Your task to perform on an android device: uninstall "Move to iOS" Image 0: 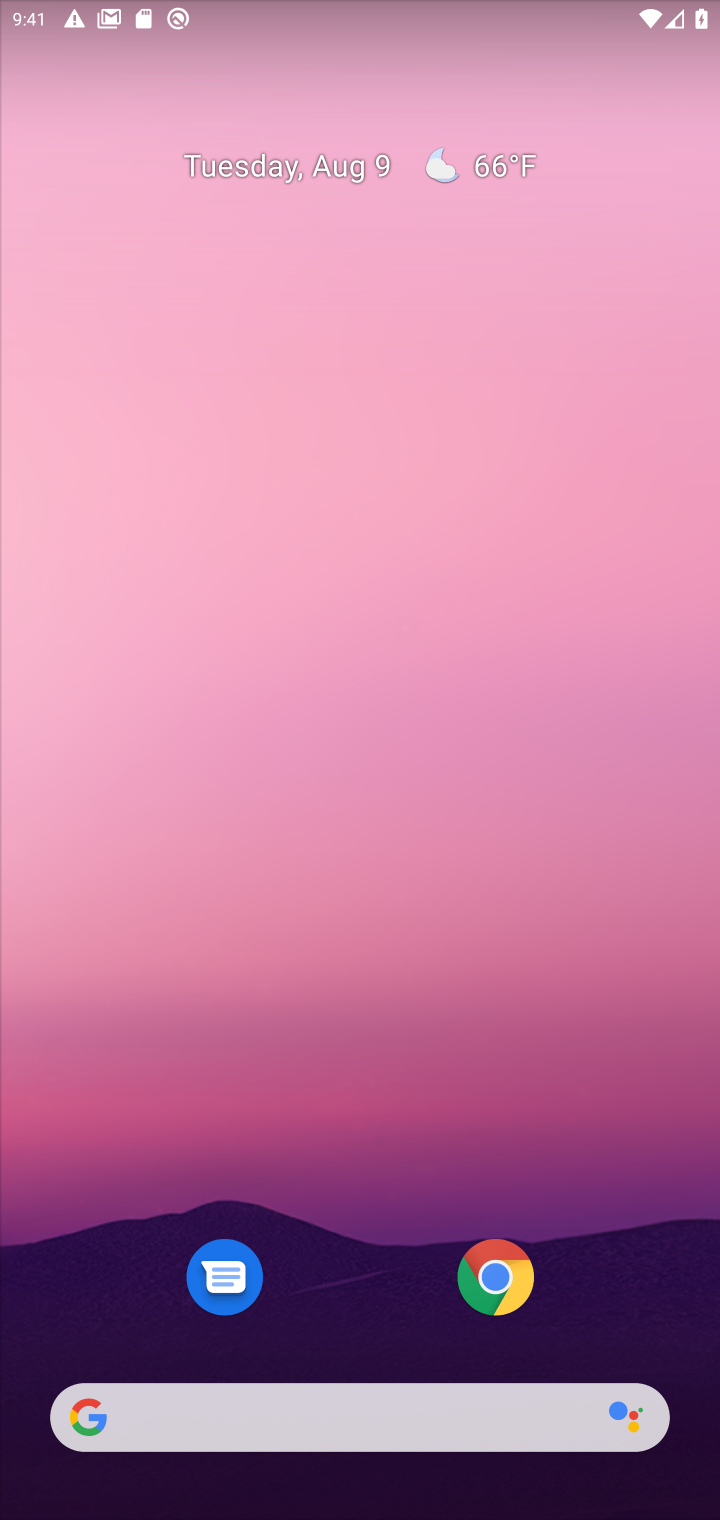
Step 0: drag from (371, 1321) to (185, 41)
Your task to perform on an android device: uninstall "Move to iOS" Image 1: 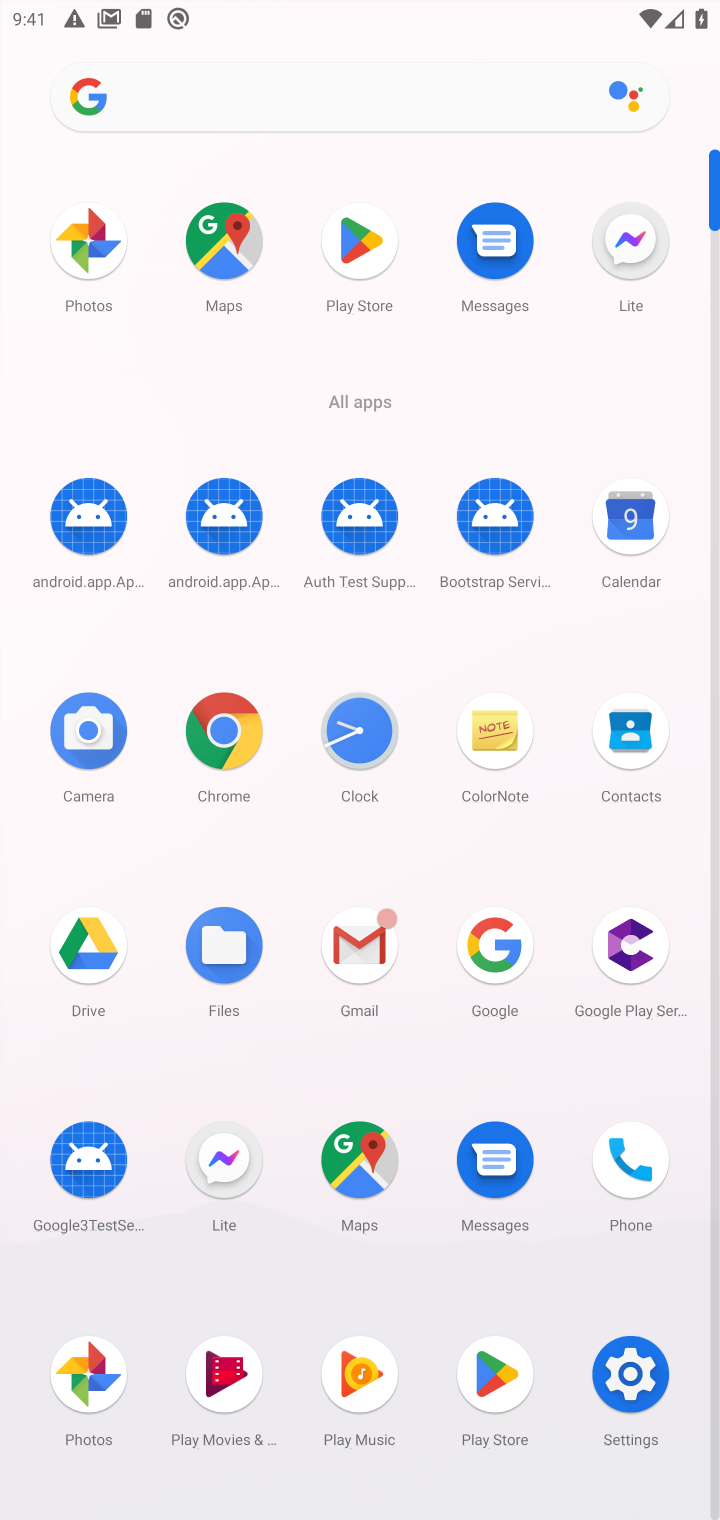
Step 1: click (528, 1347)
Your task to perform on an android device: uninstall "Move to iOS" Image 2: 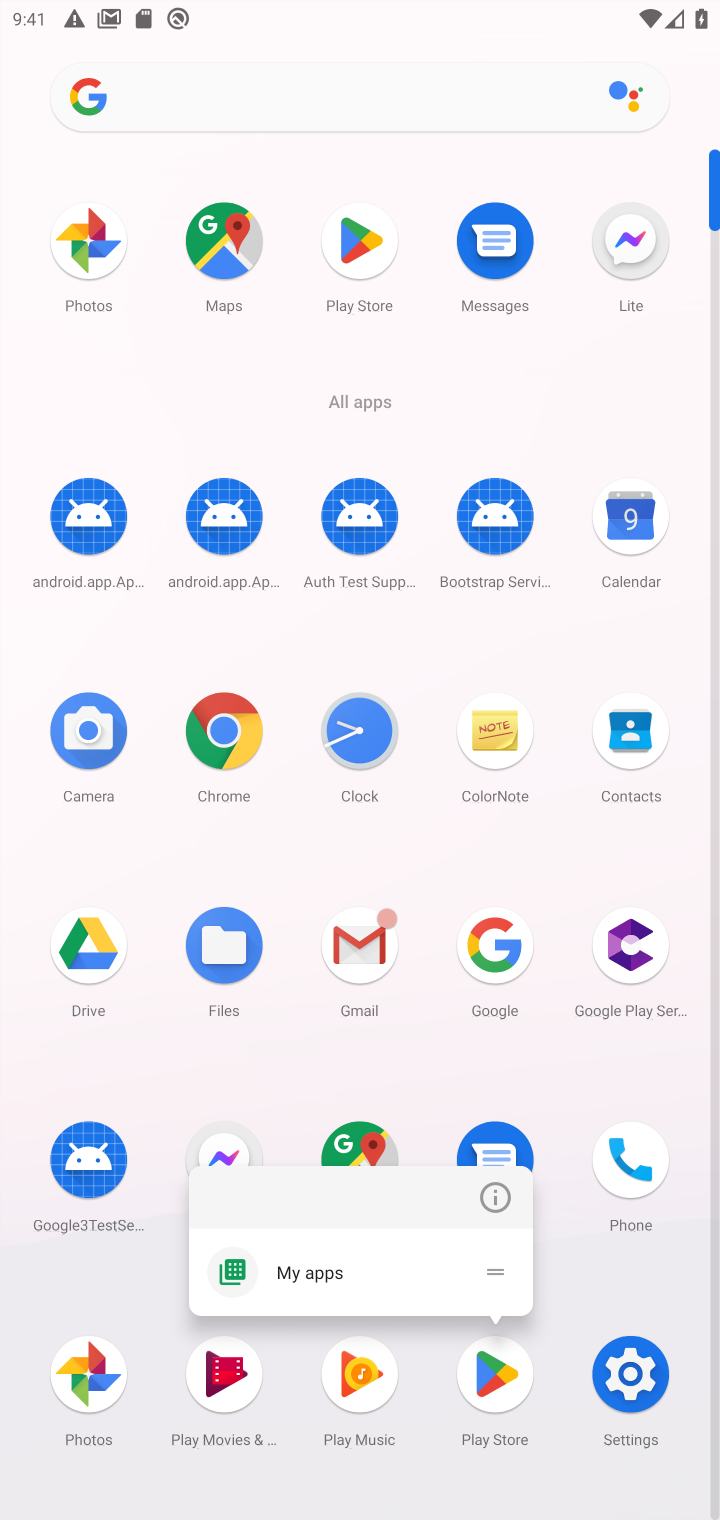
Step 2: click (508, 1378)
Your task to perform on an android device: uninstall "Move to iOS" Image 3: 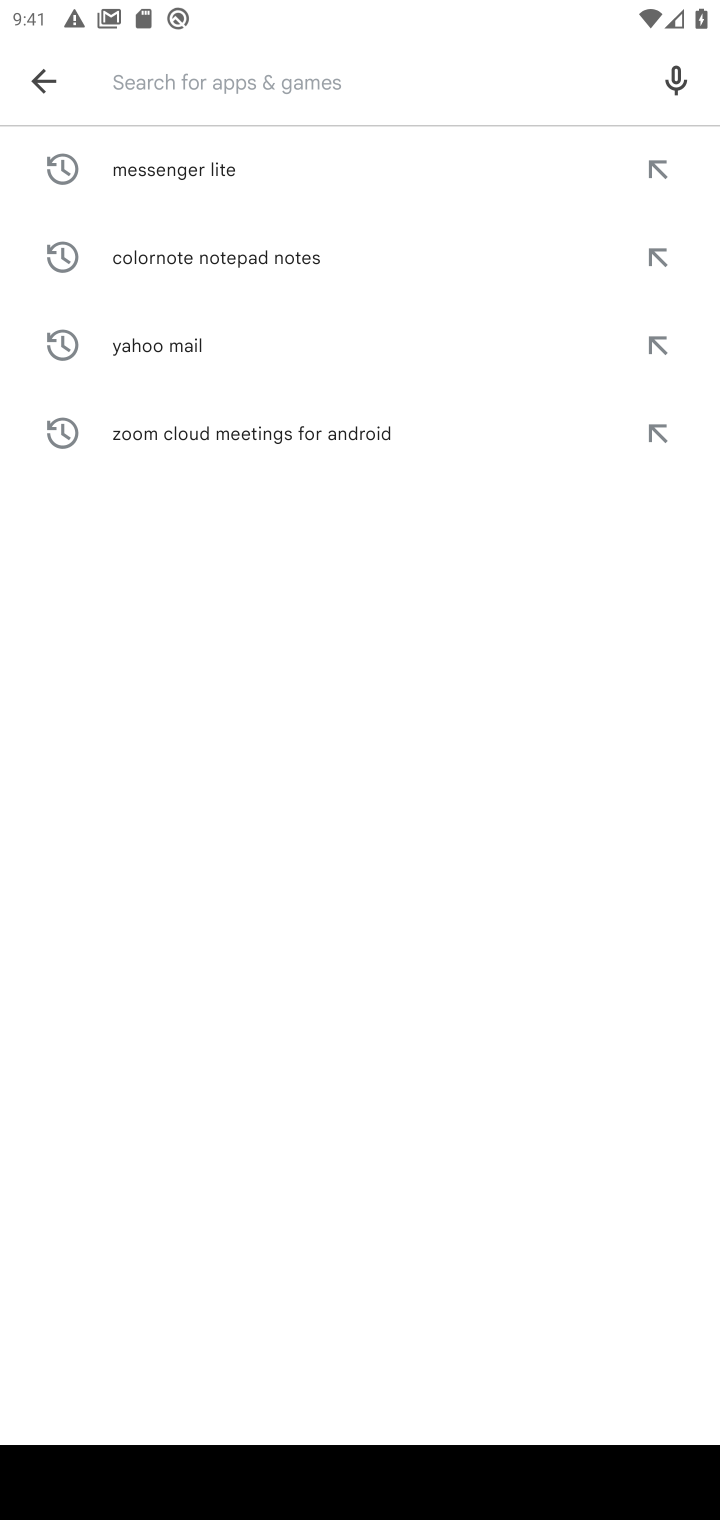
Step 3: click (27, 81)
Your task to perform on an android device: uninstall "Move to iOS" Image 4: 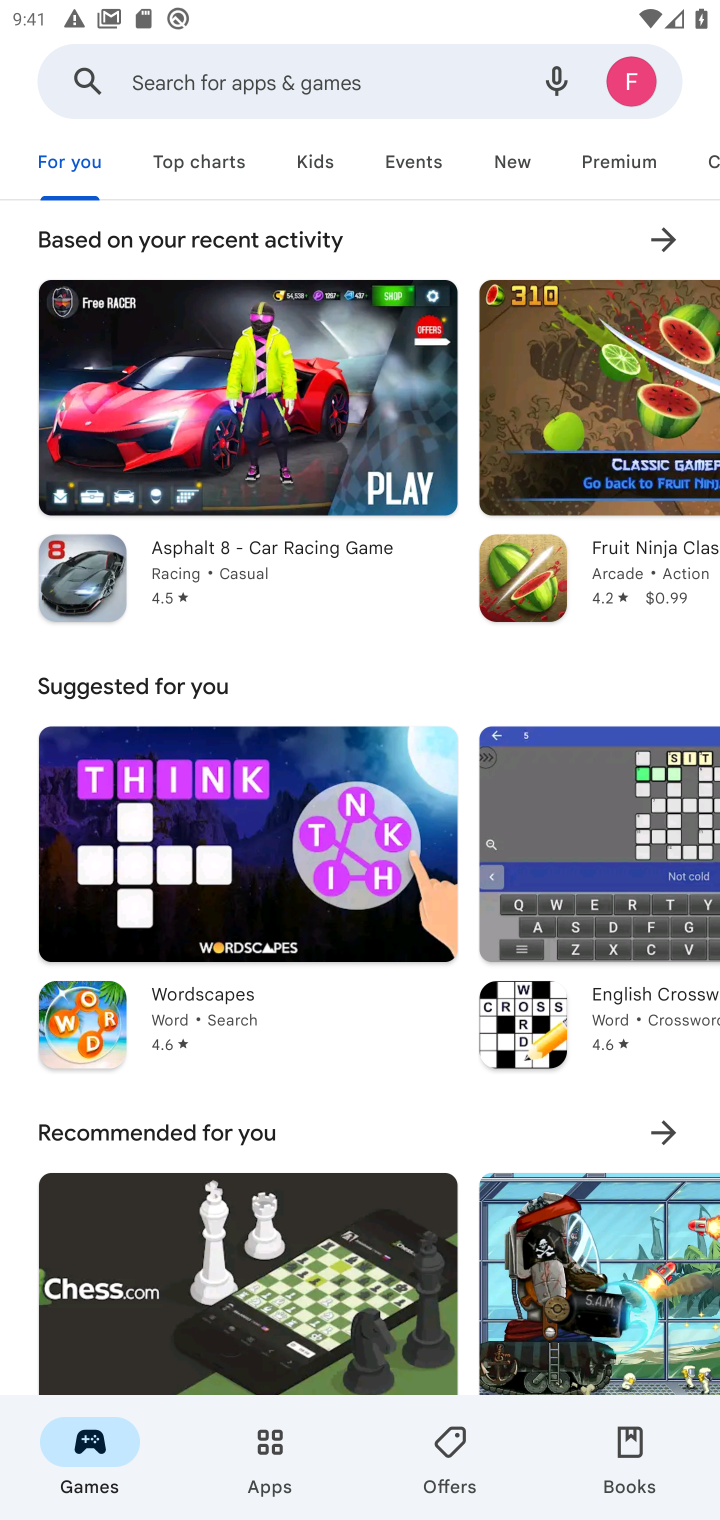
Step 4: click (217, 85)
Your task to perform on an android device: uninstall "Move to iOS" Image 5: 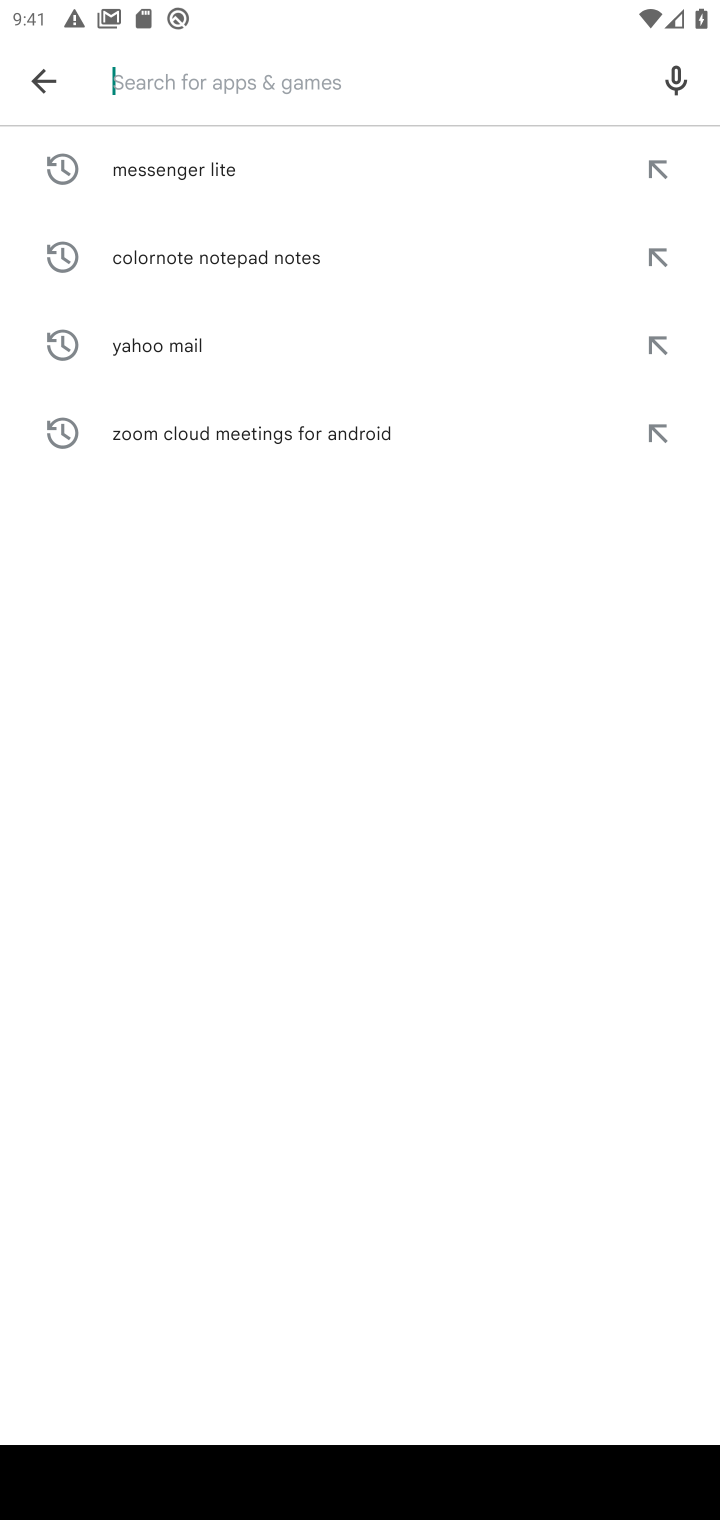
Step 5: type "Move to iOS"
Your task to perform on an android device: uninstall "Move to iOS" Image 6: 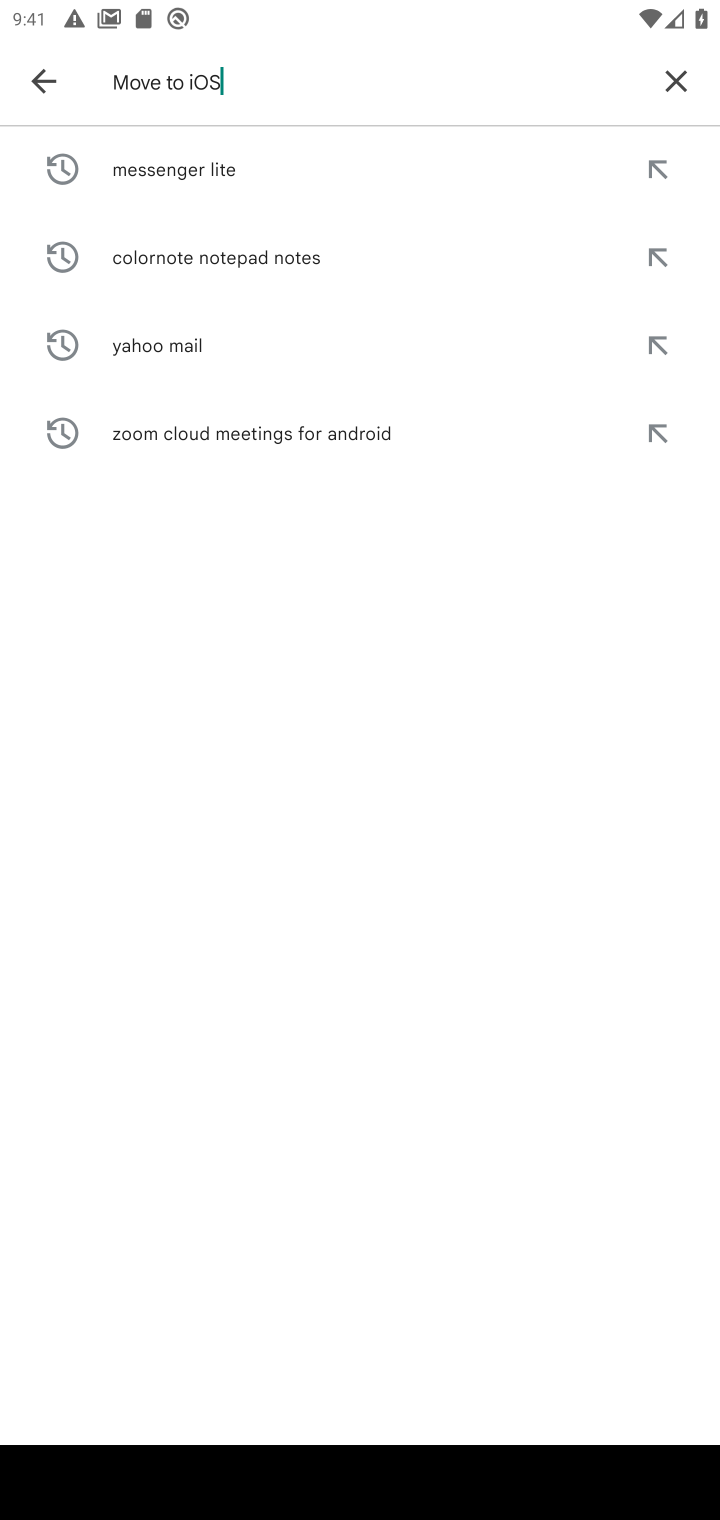
Step 6: type ""
Your task to perform on an android device: uninstall "Move to iOS" Image 7: 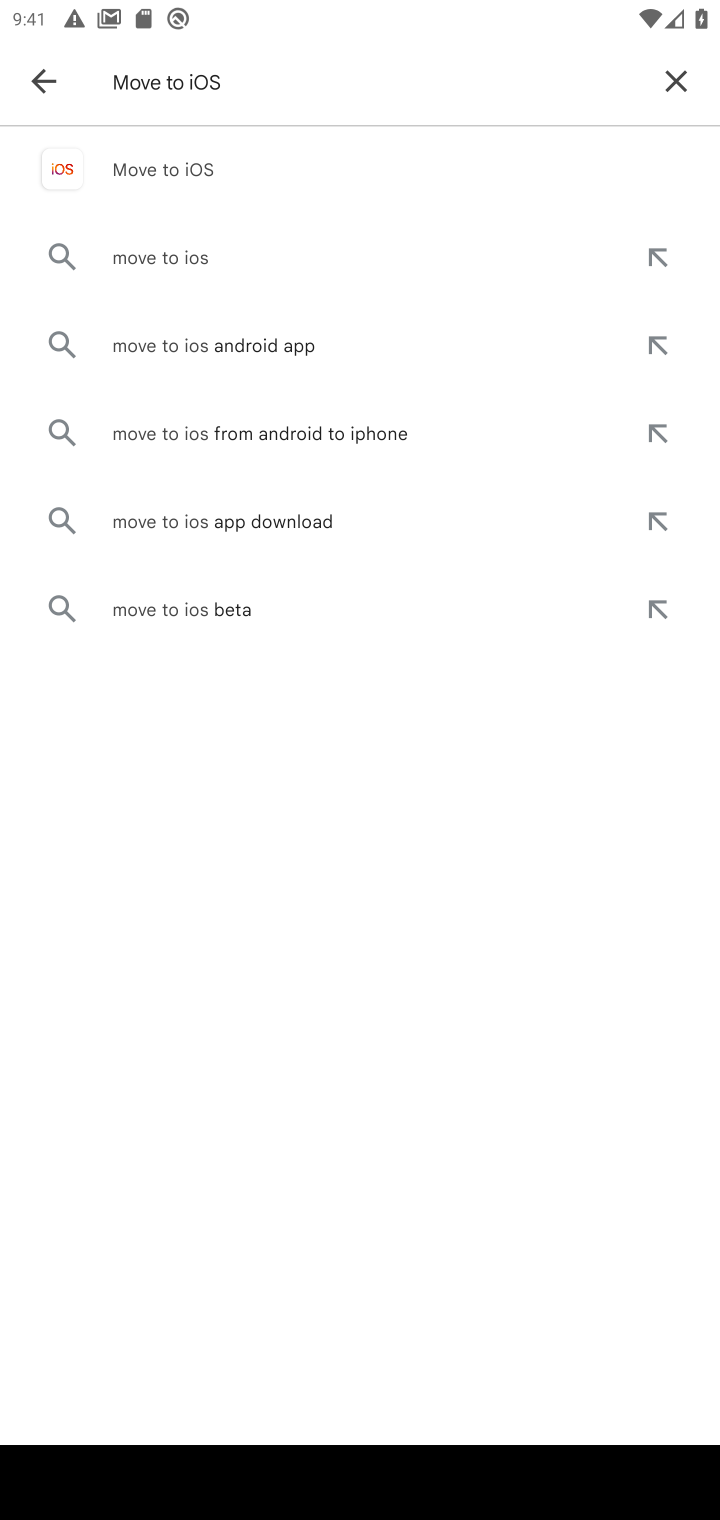
Step 7: click (182, 140)
Your task to perform on an android device: uninstall "Move to iOS" Image 8: 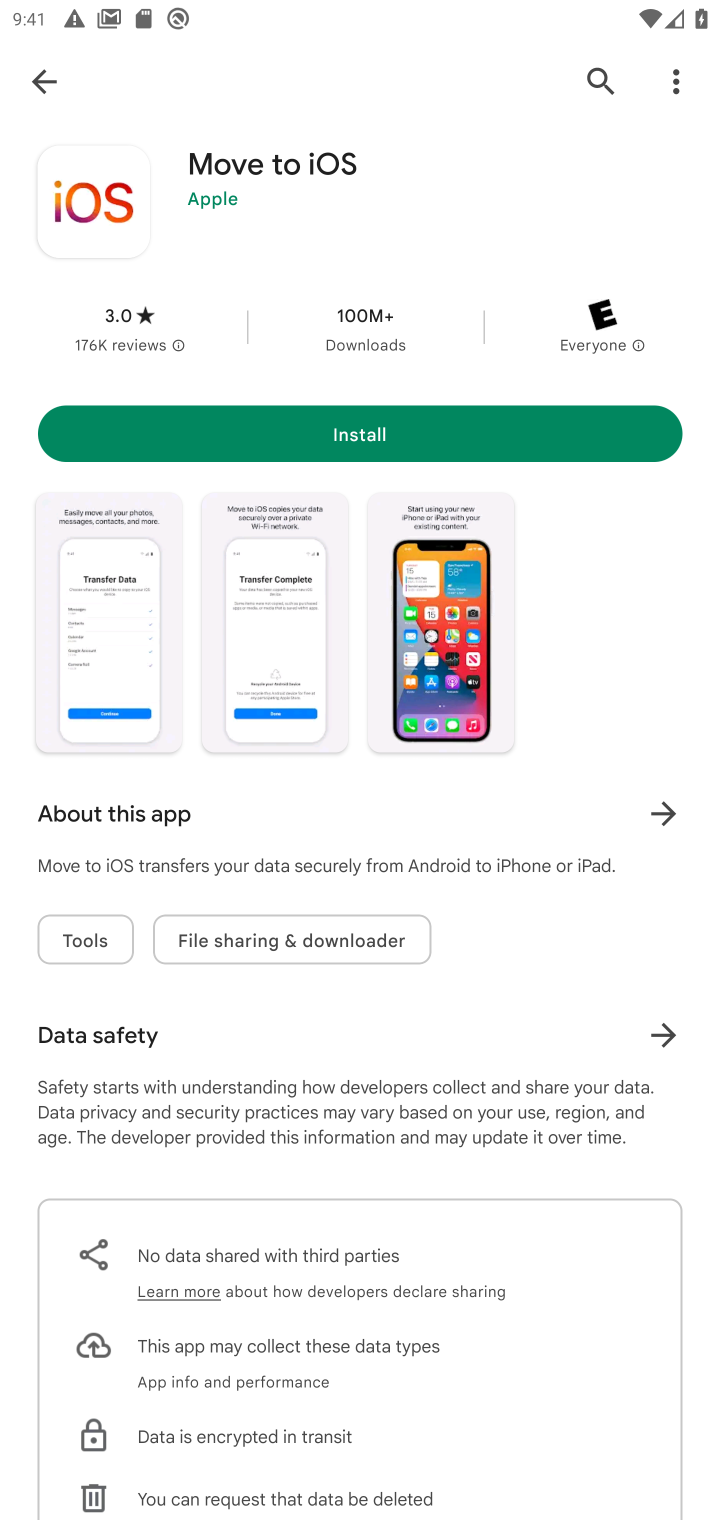
Step 8: task complete